Your task to perform on an android device: Show me recent news Image 0: 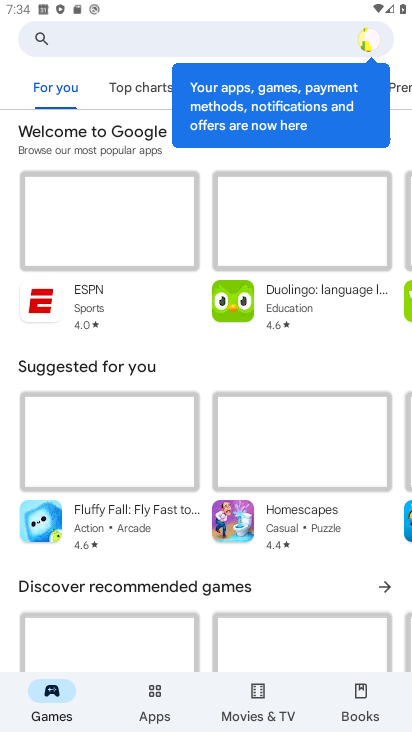
Step 0: press home button
Your task to perform on an android device: Show me recent news Image 1: 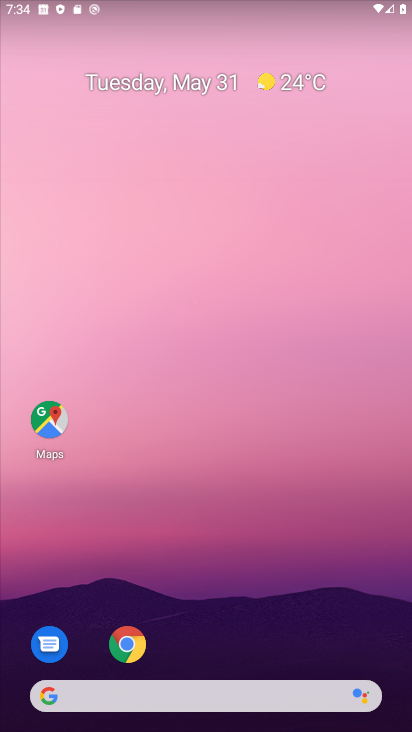
Step 1: drag from (313, 635) to (314, 218)
Your task to perform on an android device: Show me recent news Image 2: 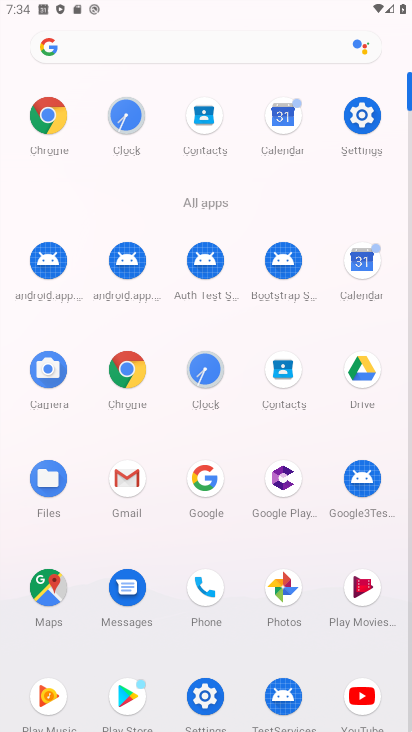
Step 2: click (115, 363)
Your task to perform on an android device: Show me recent news Image 3: 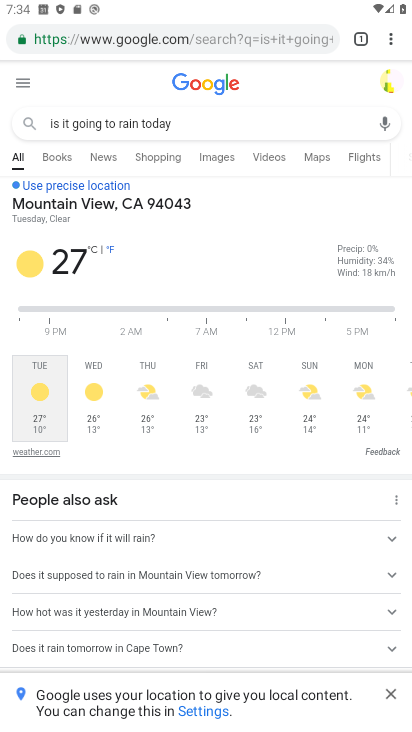
Step 3: click (176, 37)
Your task to perform on an android device: Show me recent news Image 4: 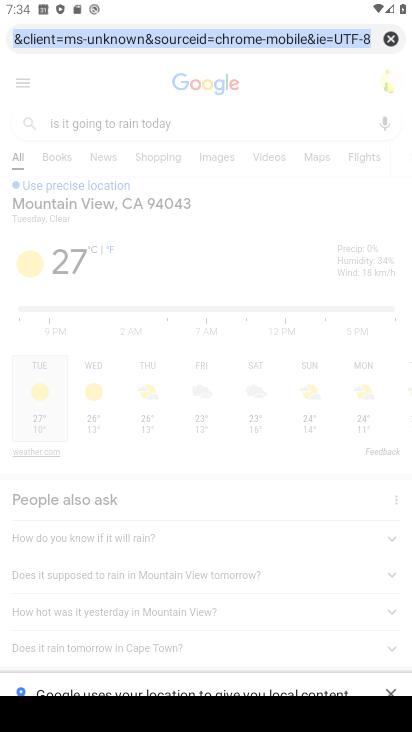
Step 4: click (393, 33)
Your task to perform on an android device: Show me recent news Image 5: 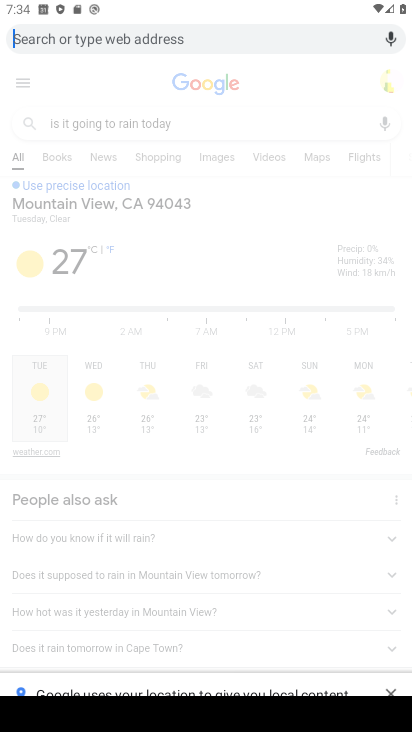
Step 5: type "show me recent news"
Your task to perform on an android device: Show me recent news Image 6: 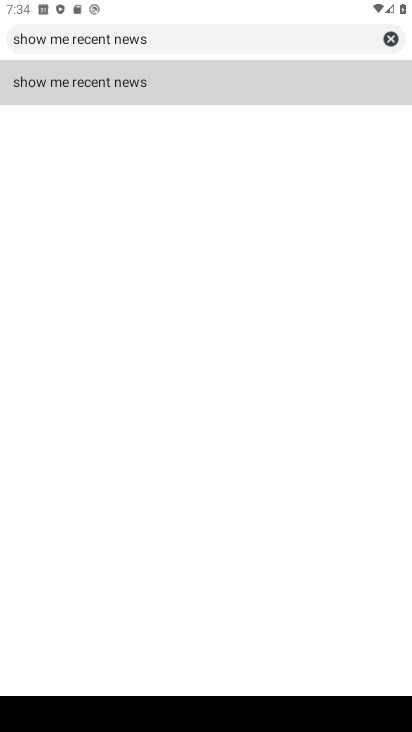
Step 6: click (85, 80)
Your task to perform on an android device: Show me recent news Image 7: 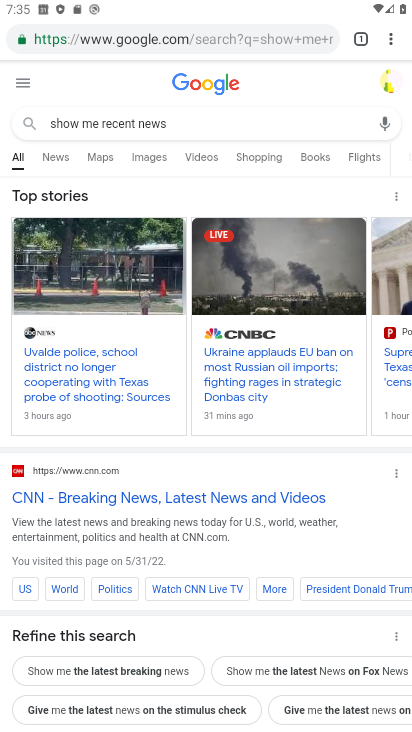
Step 7: task complete